Your task to perform on an android device: Open eBay Image 0: 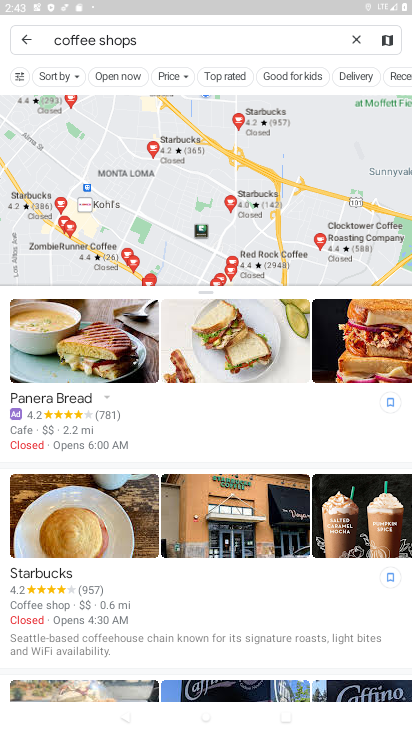
Step 0: press home button
Your task to perform on an android device: Open eBay Image 1: 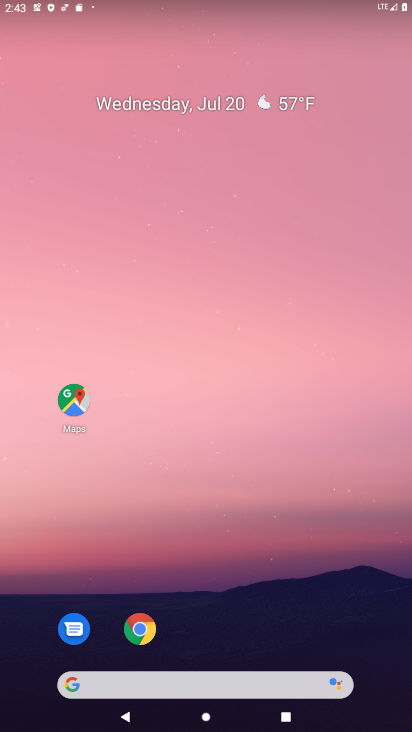
Step 1: drag from (201, 670) to (119, 68)
Your task to perform on an android device: Open eBay Image 2: 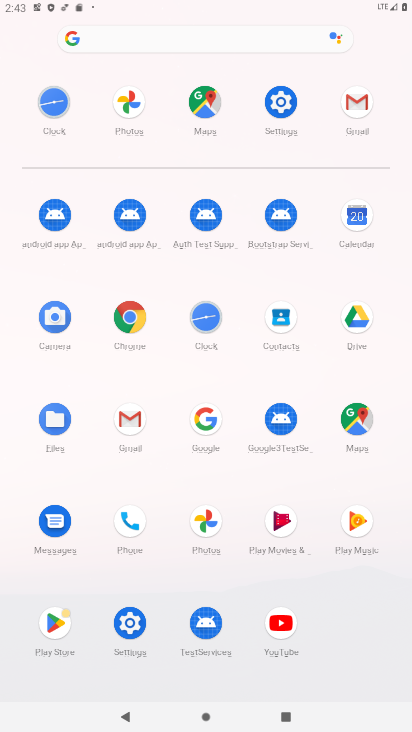
Step 2: click (138, 320)
Your task to perform on an android device: Open eBay Image 3: 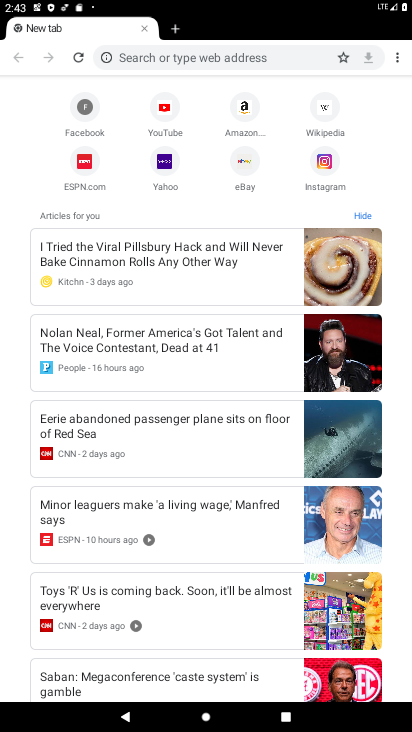
Step 3: click (205, 54)
Your task to perform on an android device: Open eBay Image 4: 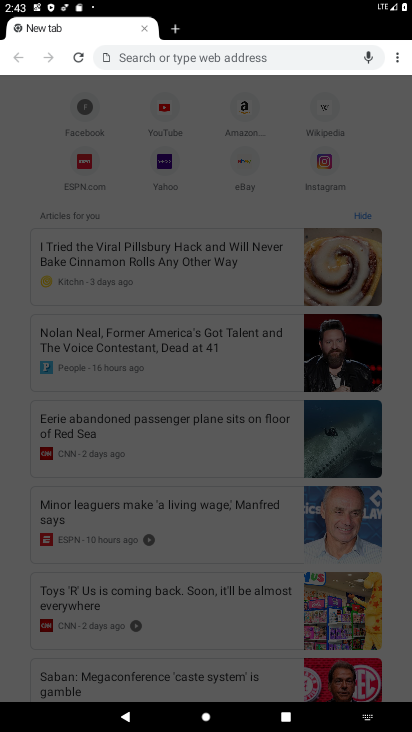
Step 4: type "ebay"
Your task to perform on an android device: Open eBay Image 5: 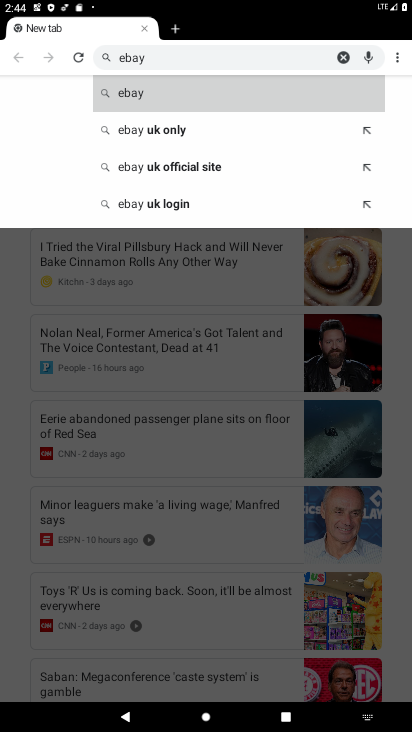
Step 5: click (139, 92)
Your task to perform on an android device: Open eBay Image 6: 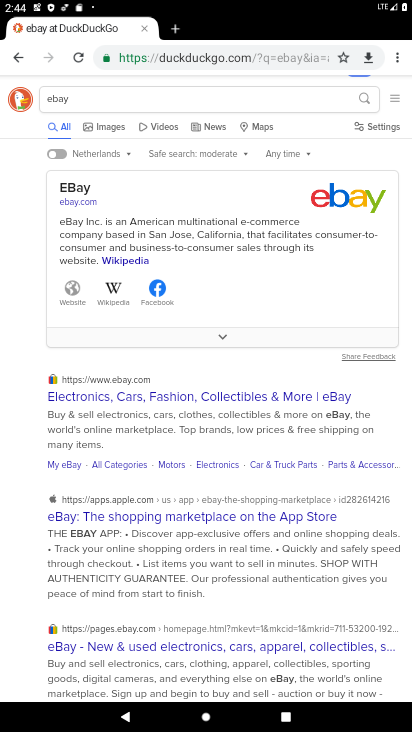
Step 6: task complete